Your task to perform on an android device: Open Google Chrome and click the shortcut for Amazon.com Image 0: 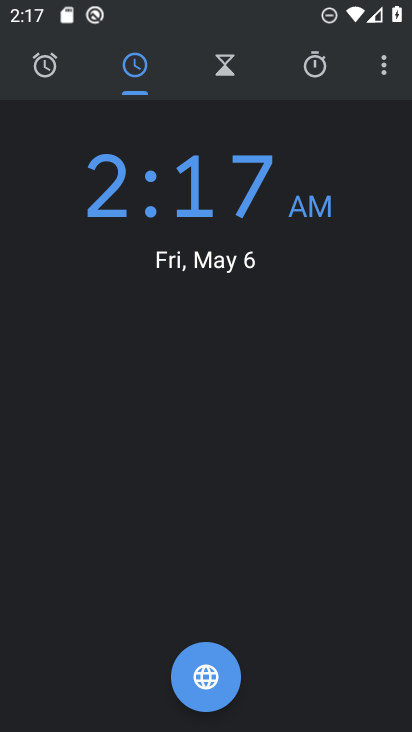
Step 0: press home button
Your task to perform on an android device: Open Google Chrome and click the shortcut for Amazon.com Image 1: 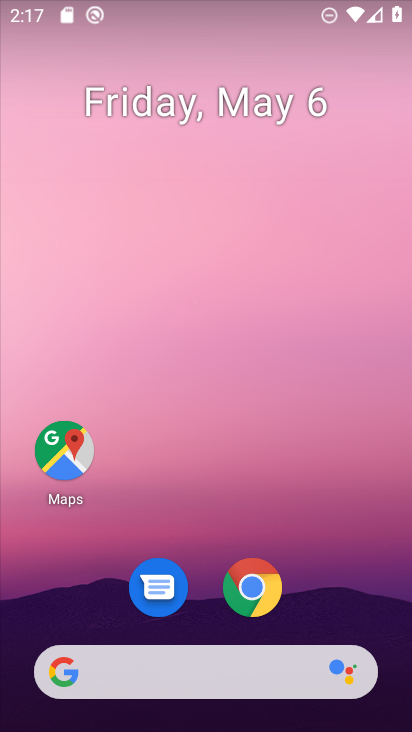
Step 1: click (264, 587)
Your task to perform on an android device: Open Google Chrome and click the shortcut for Amazon.com Image 2: 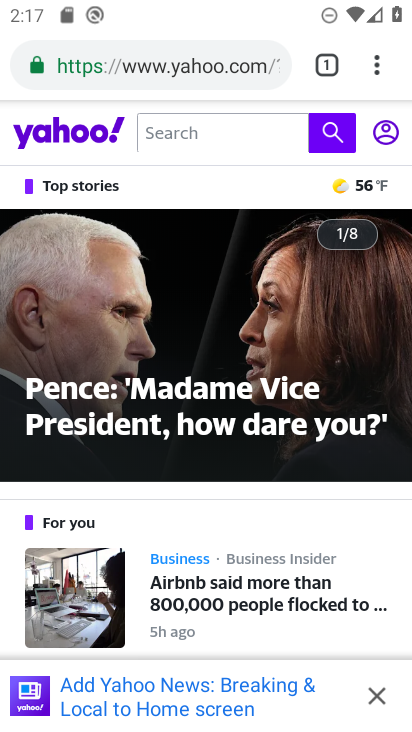
Step 2: drag from (378, 68) to (226, 215)
Your task to perform on an android device: Open Google Chrome and click the shortcut for Amazon.com Image 3: 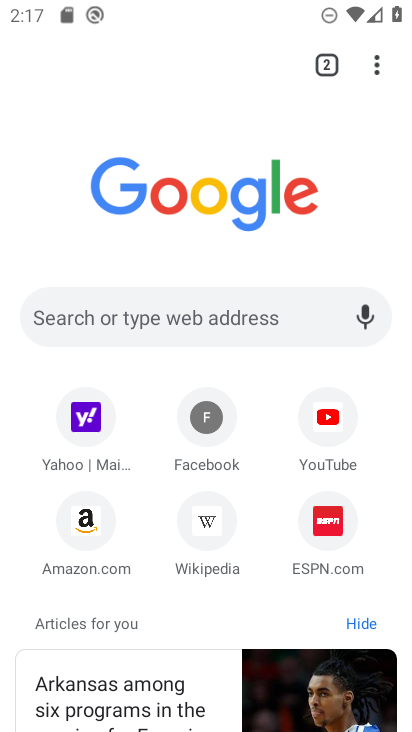
Step 3: click (76, 520)
Your task to perform on an android device: Open Google Chrome and click the shortcut for Amazon.com Image 4: 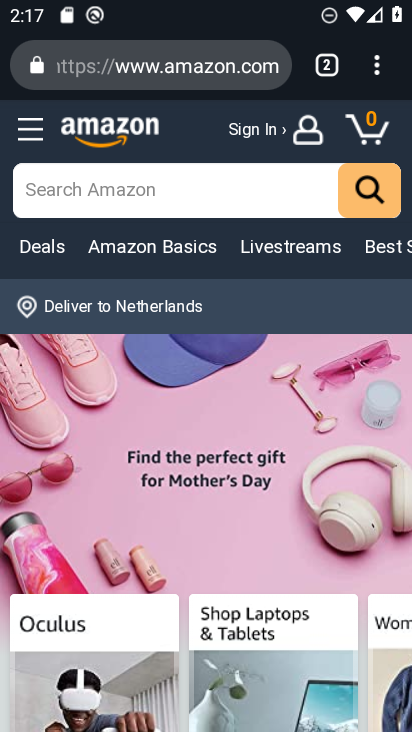
Step 4: task complete